Your task to perform on an android device: turn off location history Image 0: 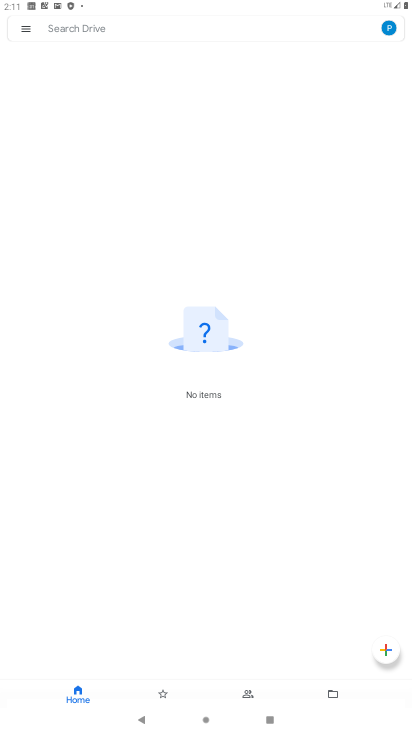
Step 0: press home button
Your task to perform on an android device: turn off location history Image 1: 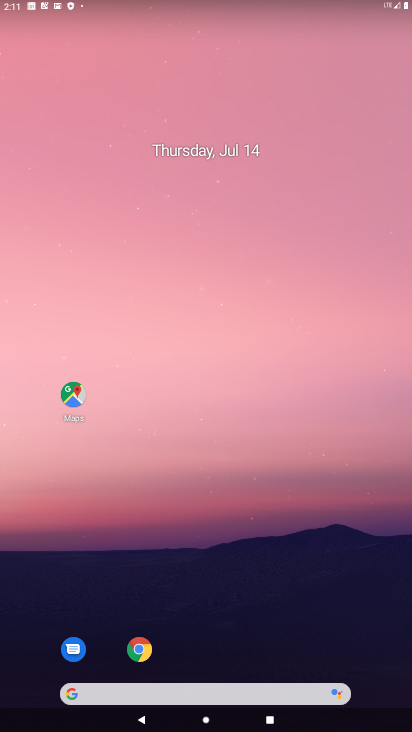
Step 1: drag from (370, 676) to (171, 39)
Your task to perform on an android device: turn off location history Image 2: 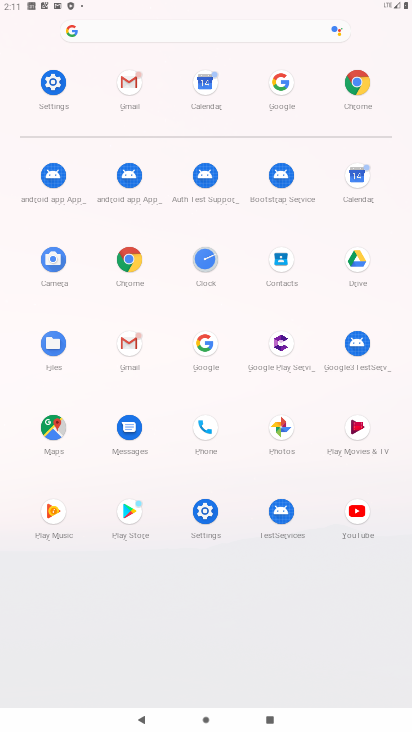
Step 2: click (202, 500)
Your task to perform on an android device: turn off location history Image 3: 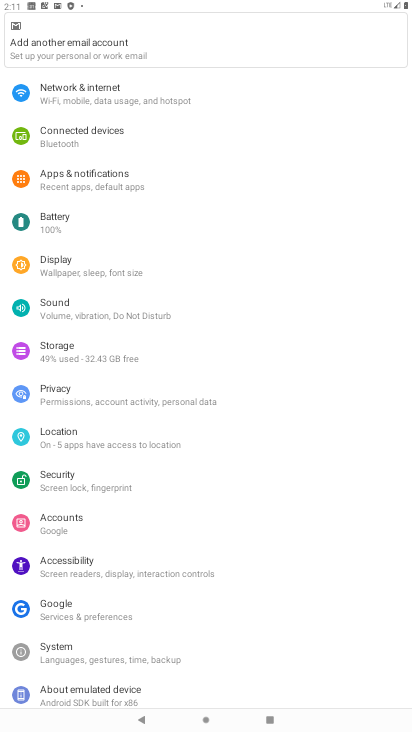
Step 3: click (99, 440)
Your task to perform on an android device: turn off location history Image 4: 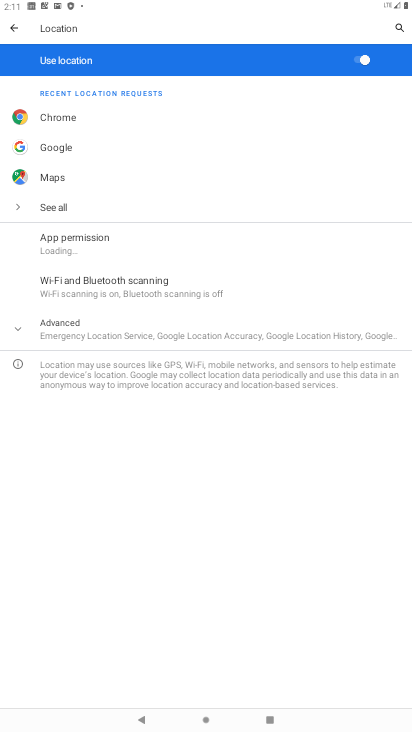
Step 4: click (99, 440)
Your task to perform on an android device: turn off location history Image 5: 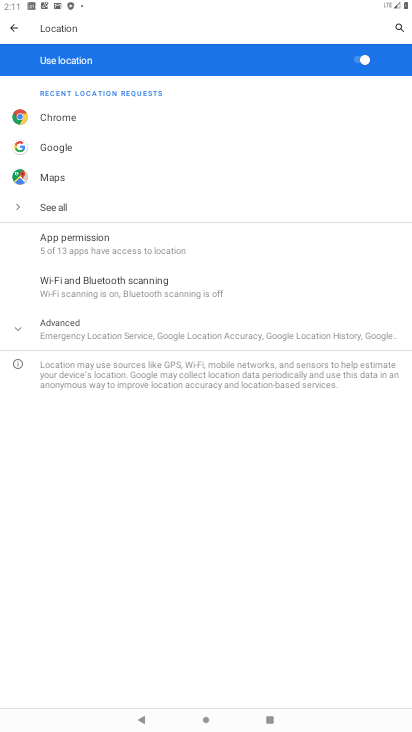
Step 5: click (97, 324)
Your task to perform on an android device: turn off location history Image 6: 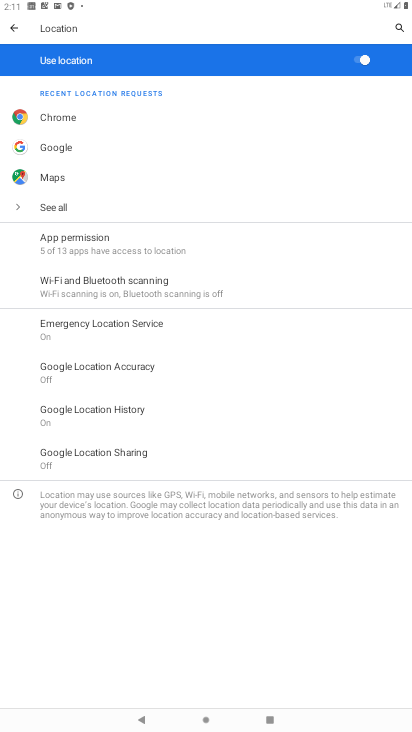
Step 6: click (85, 403)
Your task to perform on an android device: turn off location history Image 7: 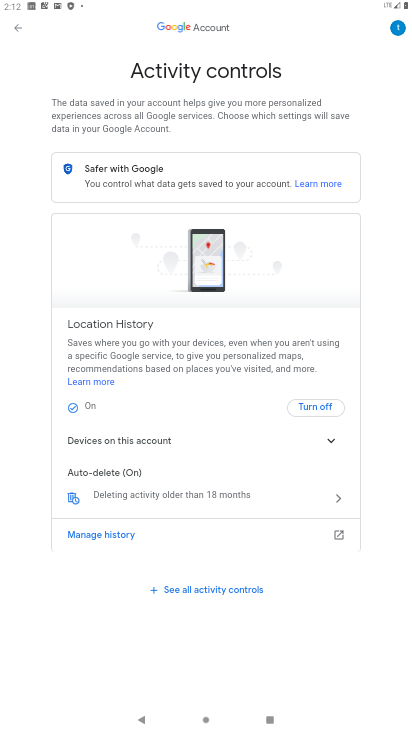
Step 7: click (320, 401)
Your task to perform on an android device: turn off location history Image 8: 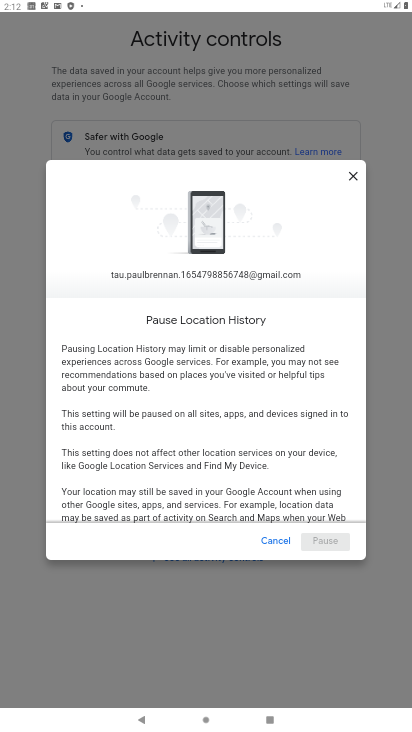
Step 8: task complete